Your task to perform on an android device: toggle notifications settings in the gmail app Image 0: 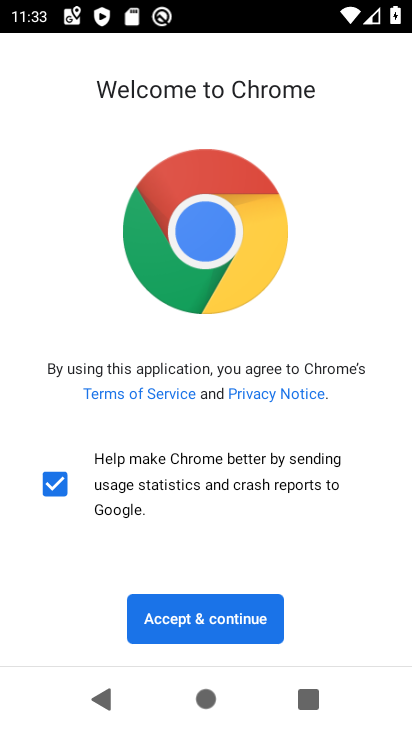
Step 0: press home button
Your task to perform on an android device: toggle notifications settings in the gmail app Image 1: 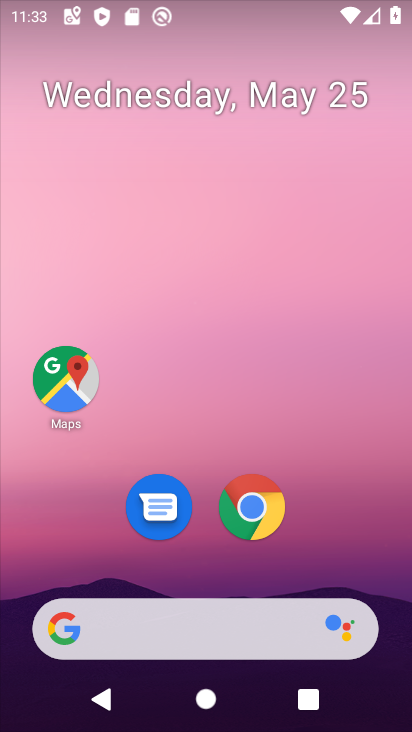
Step 1: drag from (330, 539) to (283, 47)
Your task to perform on an android device: toggle notifications settings in the gmail app Image 2: 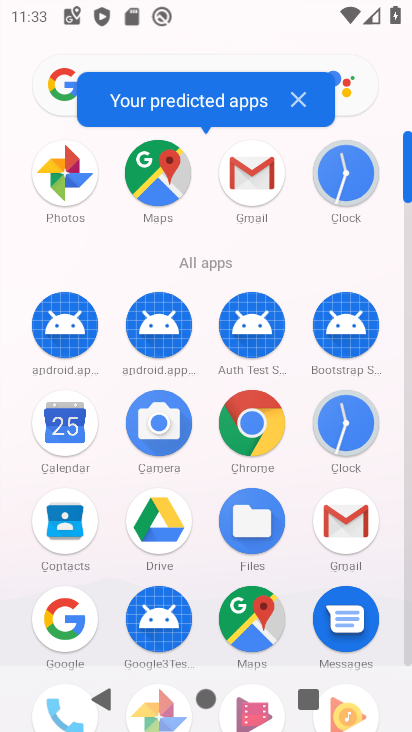
Step 2: click (248, 172)
Your task to perform on an android device: toggle notifications settings in the gmail app Image 3: 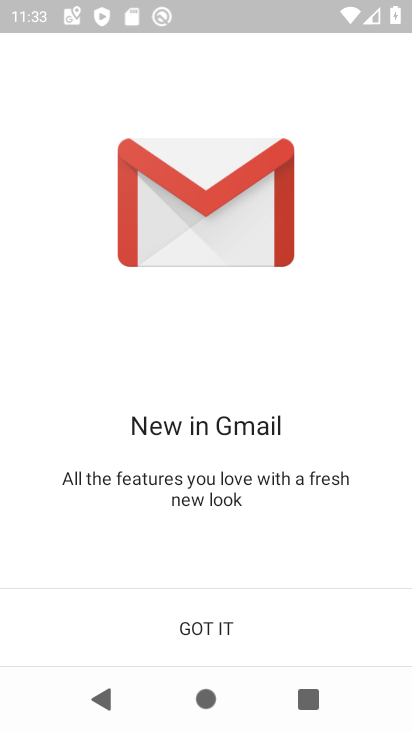
Step 3: click (207, 625)
Your task to perform on an android device: toggle notifications settings in the gmail app Image 4: 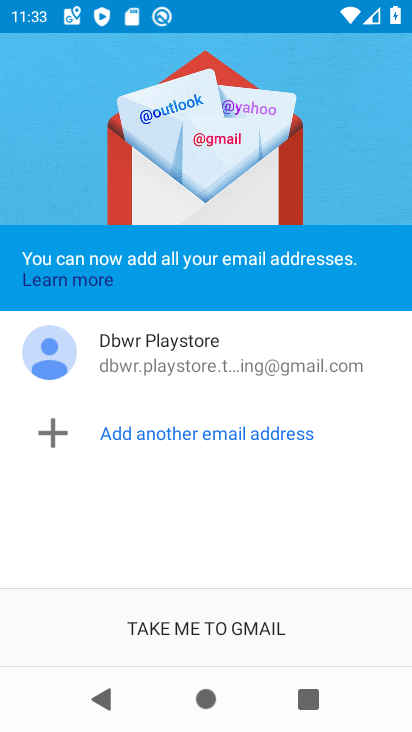
Step 4: click (207, 625)
Your task to perform on an android device: toggle notifications settings in the gmail app Image 5: 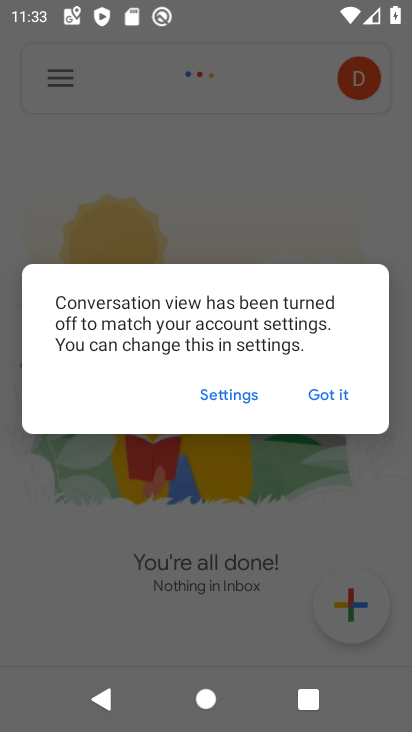
Step 5: click (324, 391)
Your task to perform on an android device: toggle notifications settings in the gmail app Image 6: 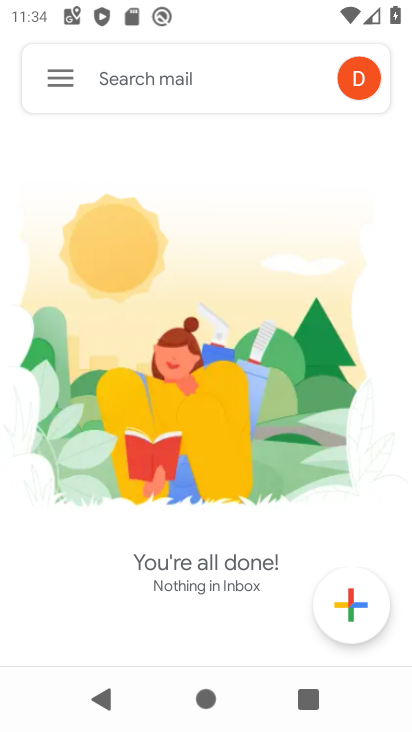
Step 6: click (62, 80)
Your task to perform on an android device: toggle notifications settings in the gmail app Image 7: 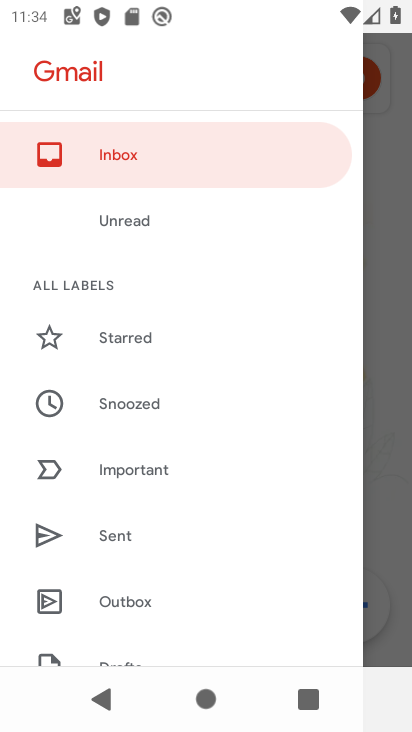
Step 7: drag from (135, 493) to (177, 387)
Your task to perform on an android device: toggle notifications settings in the gmail app Image 8: 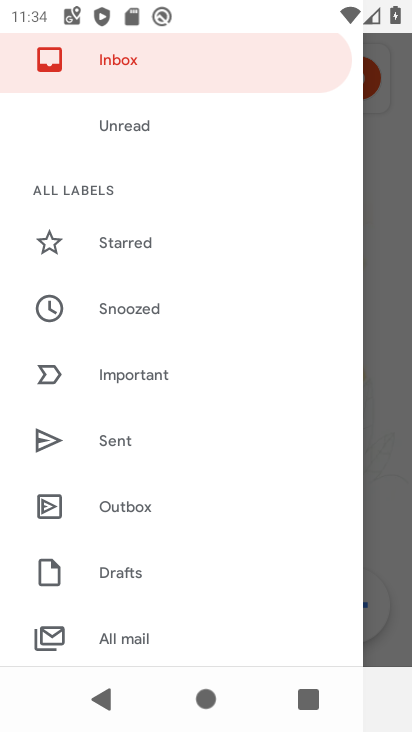
Step 8: drag from (118, 473) to (173, 388)
Your task to perform on an android device: toggle notifications settings in the gmail app Image 9: 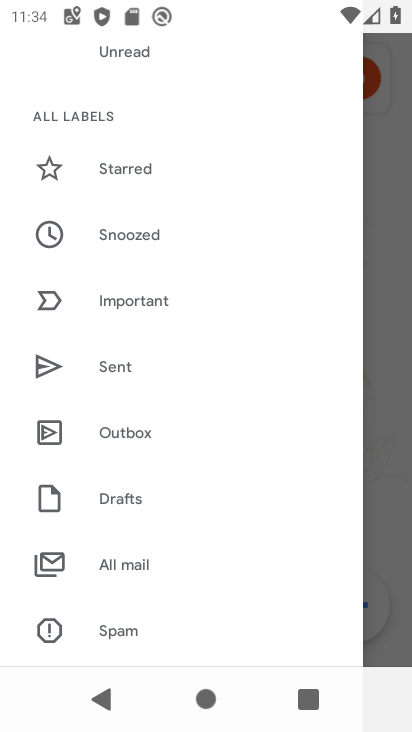
Step 9: drag from (126, 526) to (170, 408)
Your task to perform on an android device: toggle notifications settings in the gmail app Image 10: 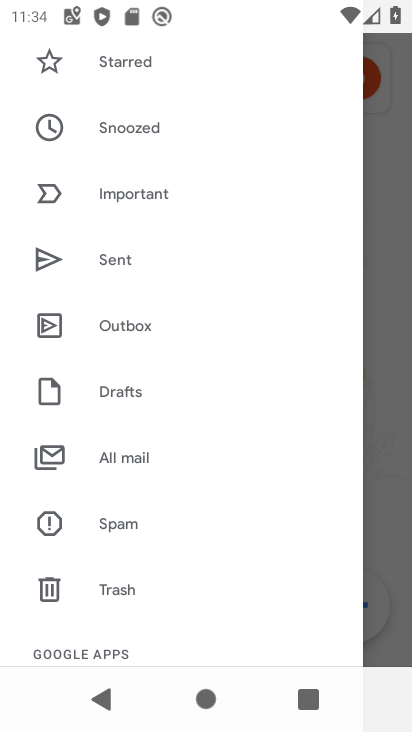
Step 10: drag from (118, 565) to (169, 435)
Your task to perform on an android device: toggle notifications settings in the gmail app Image 11: 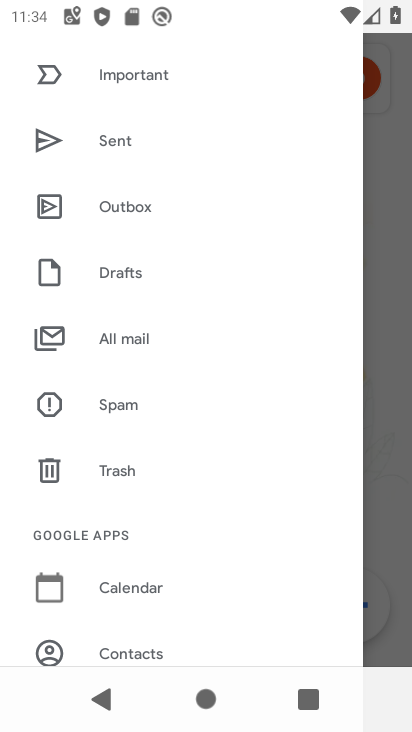
Step 11: drag from (122, 502) to (163, 407)
Your task to perform on an android device: toggle notifications settings in the gmail app Image 12: 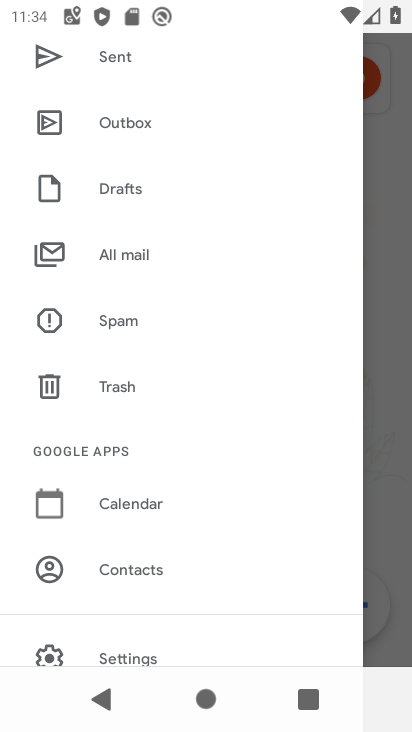
Step 12: drag from (122, 532) to (183, 434)
Your task to perform on an android device: toggle notifications settings in the gmail app Image 13: 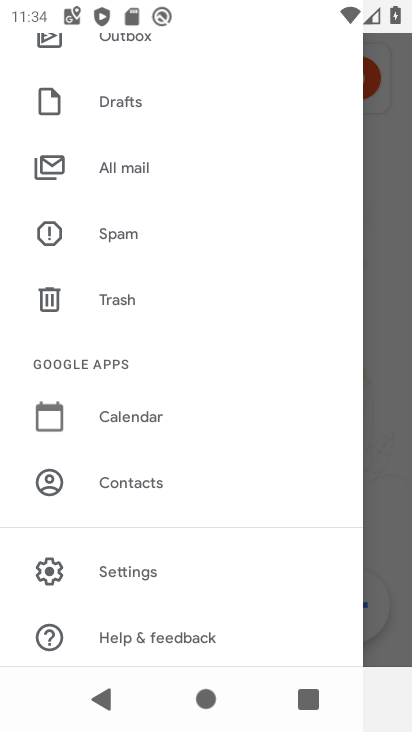
Step 13: click (139, 569)
Your task to perform on an android device: toggle notifications settings in the gmail app Image 14: 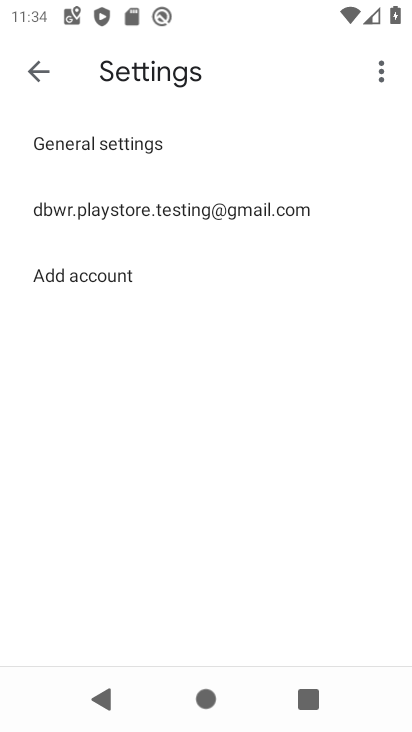
Step 14: click (246, 206)
Your task to perform on an android device: toggle notifications settings in the gmail app Image 15: 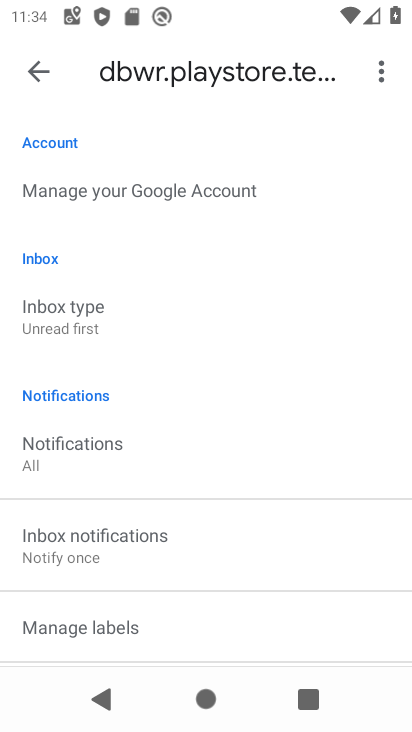
Step 15: drag from (147, 463) to (220, 366)
Your task to perform on an android device: toggle notifications settings in the gmail app Image 16: 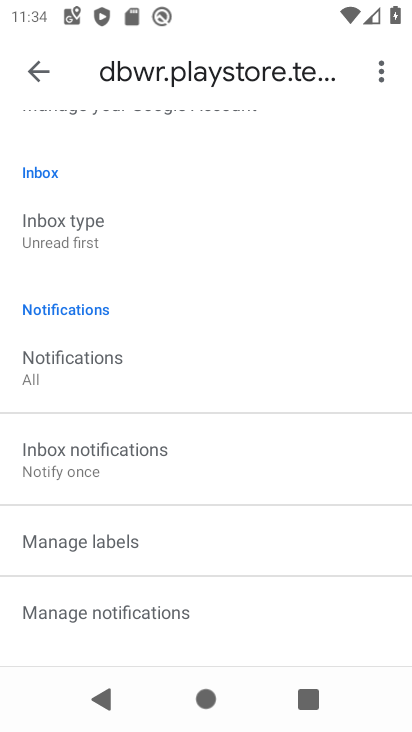
Step 16: click (143, 616)
Your task to perform on an android device: toggle notifications settings in the gmail app Image 17: 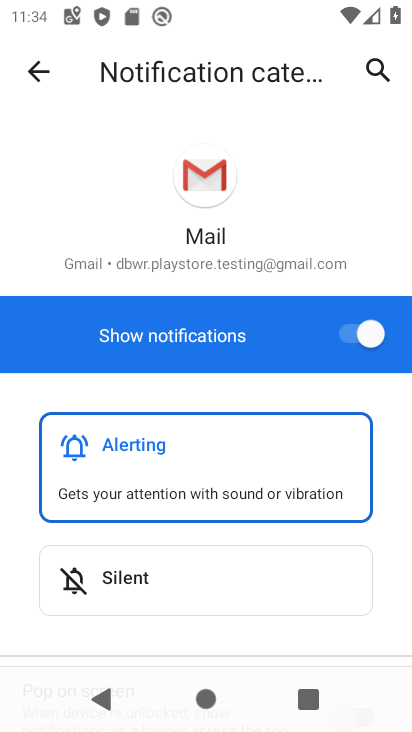
Step 17: click (367, 336)
Your task to perform on an android device: toggle notifications settings in the gmail app Image 18: 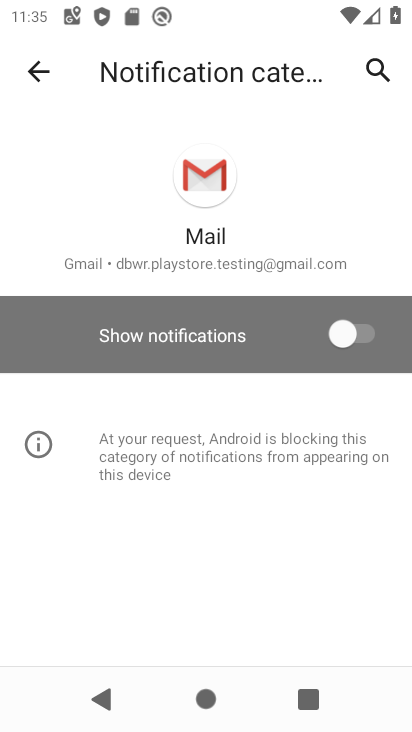
Step 18: task complete